Your task to perform on an android device: turn on sleep mode Image 0: 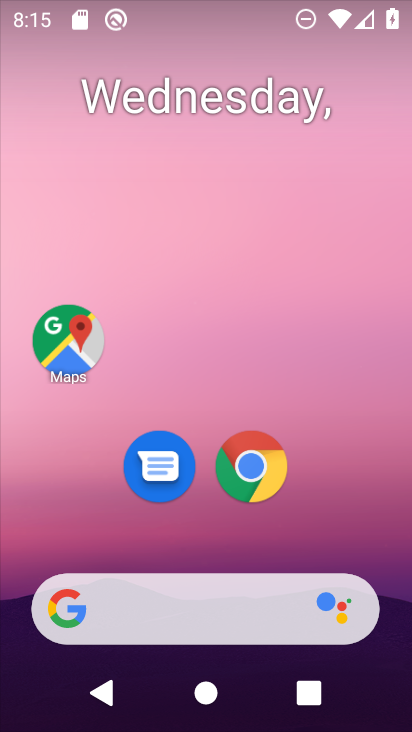
Step 0: drag from (212, 533) to (263, 26)
Your task to perform on an android device: turn on sleep mode Image 1: 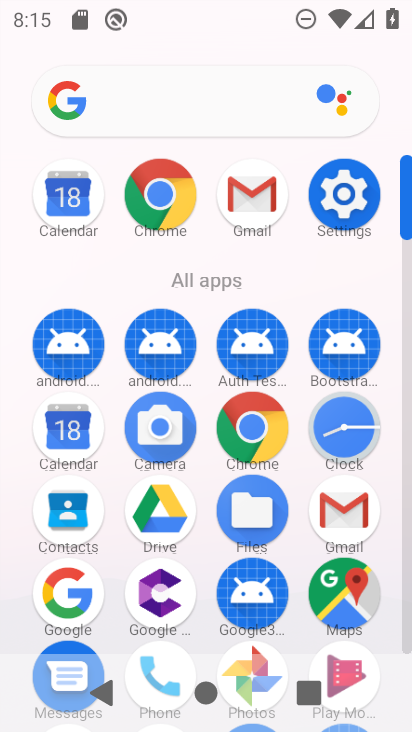
Step 1: click (352, 219)
Your task to perform on an android device: turn on sleep mode Image 2: 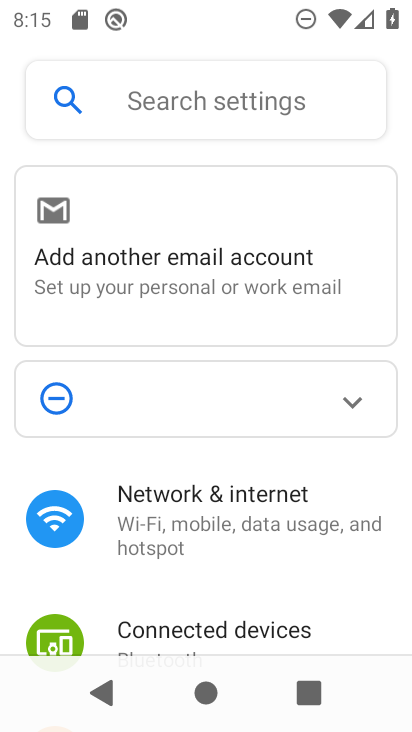
Step 2: click (223, 120)
Your task to perform on an android device: turn on sleep mode Image 3: 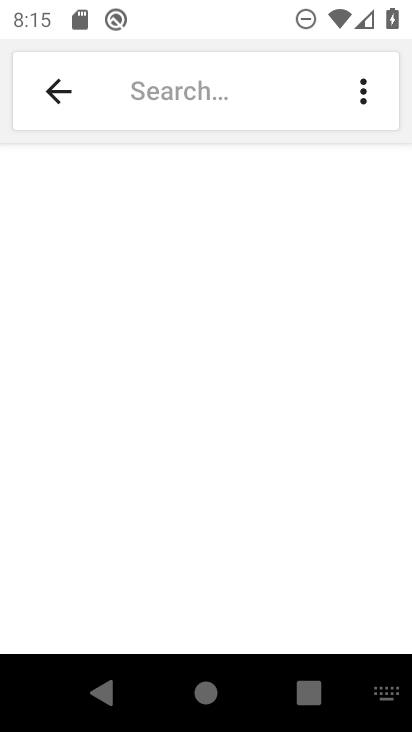
Step 3: type "sleep mode"
Your task to perform on an android device: turn on sleep mode Image 4: 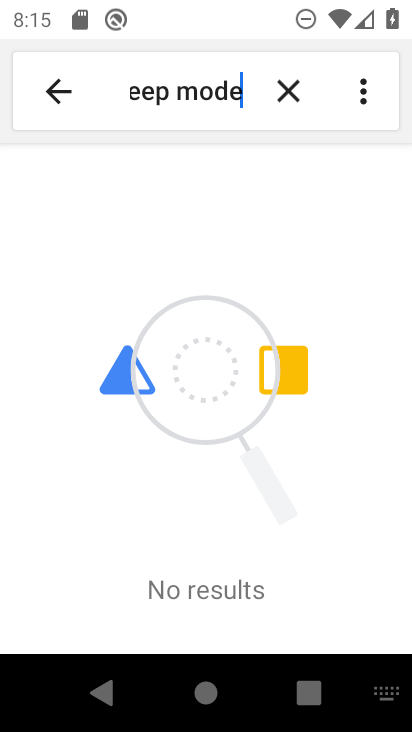
Step 4: task complete